Your task to perform on an android device: Go to network settings Image 0: 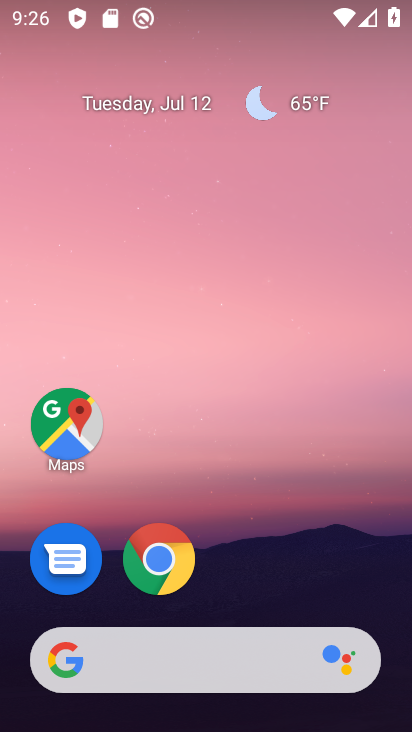
Step 0: drag from (360, 559) to (364, 171)
Your task to perform on an android device: Go to network settings Image 1: 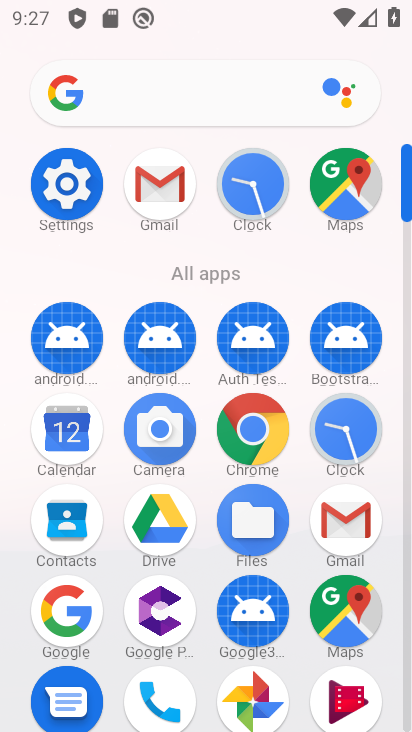
Step 1: click (77, 199)
Your task to perform on an android device: Go to network settings Image 2: 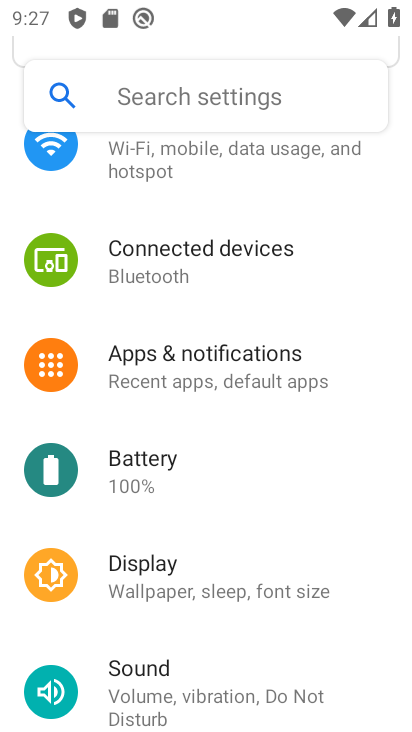
Step 2: drag from (352, 262) to (336, 387)
Your task to perform on an android device: Go to network settings Image 3: 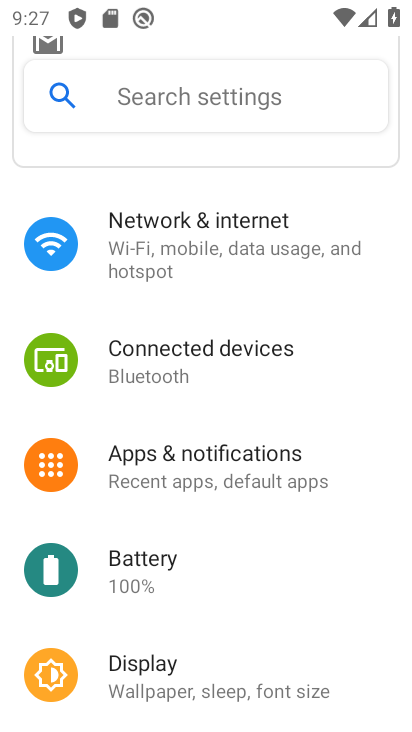
Step 3: drag from (355, 206) to (339, 429)
Your task to perform on an android device: Go to network settings Image 4: 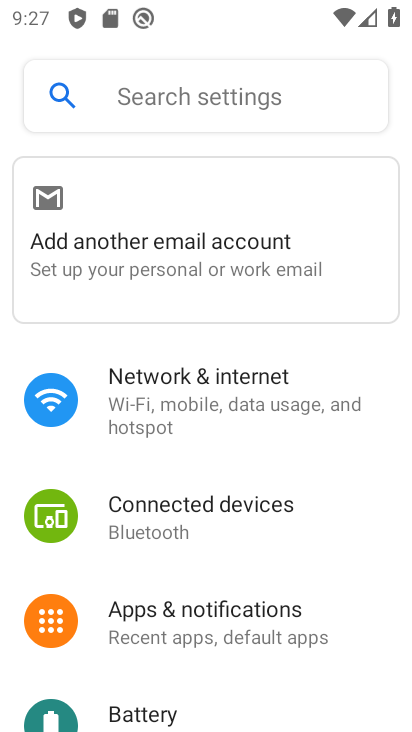
Step 4: click (240, 407)
Your task to perform on an android device: Go to network settings Image 5: 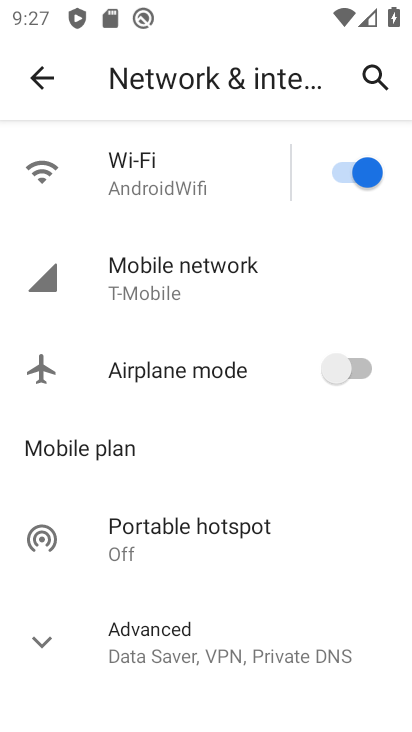
Step 5: click (190, 173)
Your task to perform on an android device: Go to network settings Image 6: 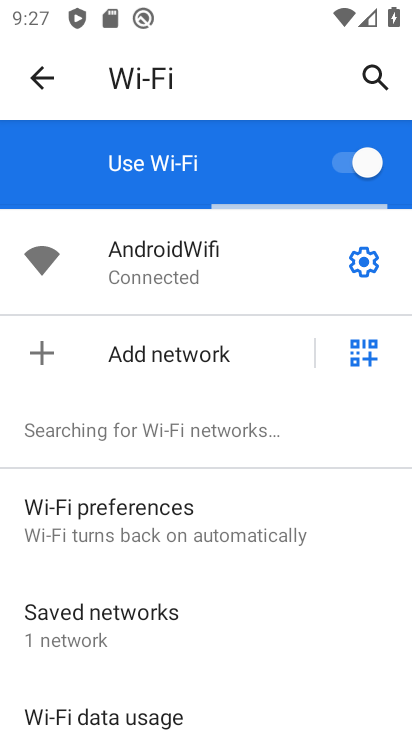
Step 6: task complete